Your task to perform on an android device: Open Chrome and go to the settings page Image 0: 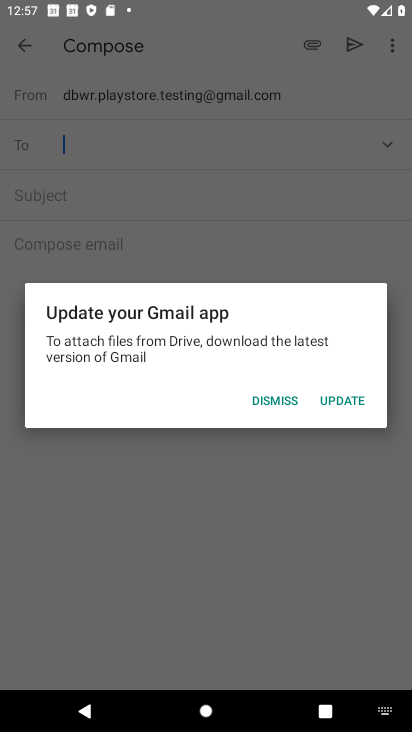
Step 0: task complete